Your task to perform on an android device: turn off location history Image 0: 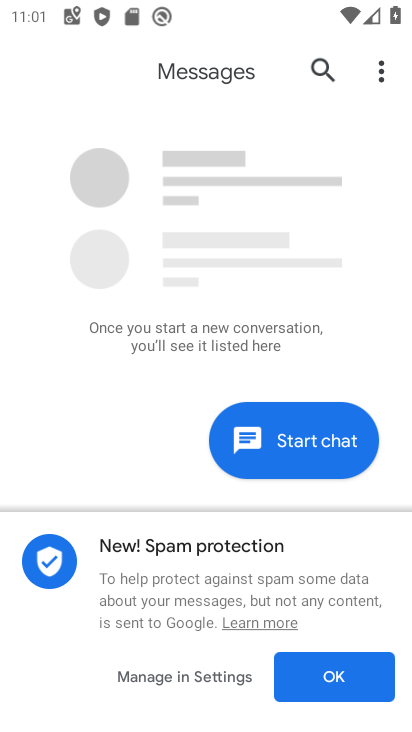
Step 0: press home button
Your task to perform on an android device: turn off location history Image 1: 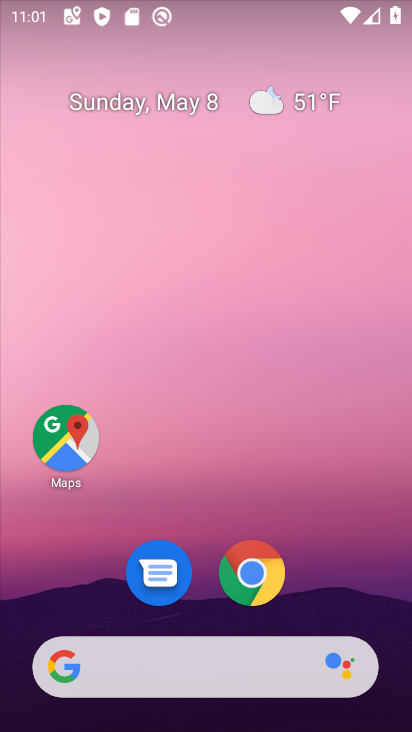
Step 1: drag from (205, 641) to (150, 357)
Your task to perform on an android device: turn off location history Image 2: 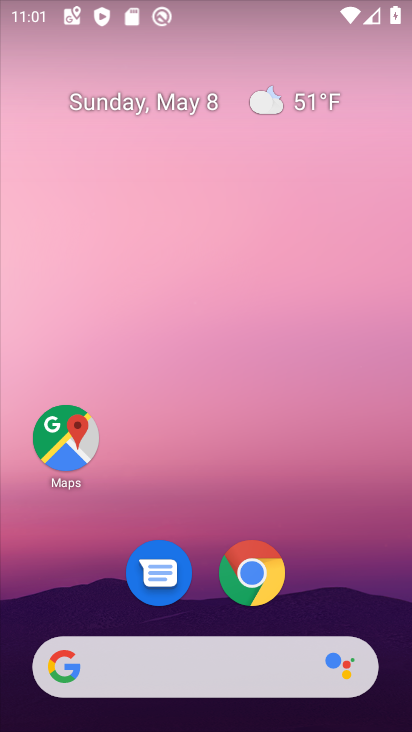
Step 2: drag from (189, 637) to (176, 148)
Your task to perform on an android device: turn off location history Image 3: 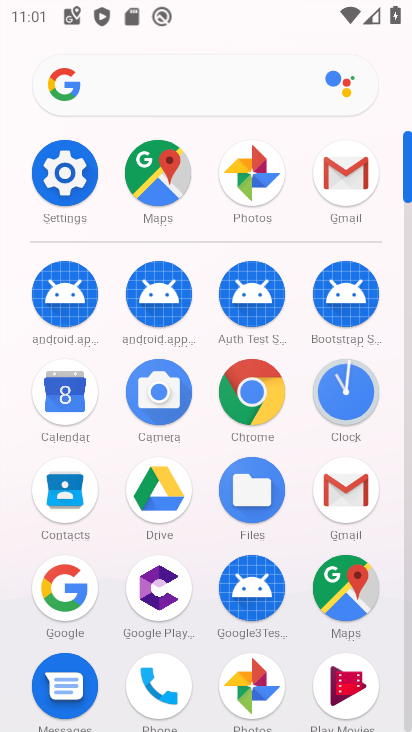
Step 3: click (54, 175)
Your task to perform on an android device: turn off location history Image 4: 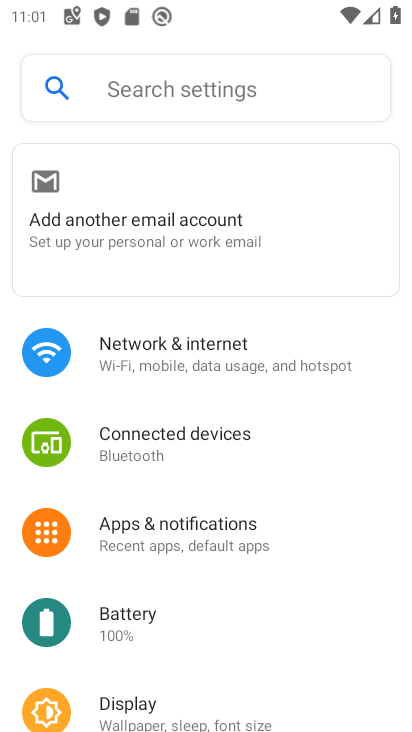
Step 4: drag from (129, 679) to (159, 343)
Your task to perform on an android device: turn off location history Image 5: 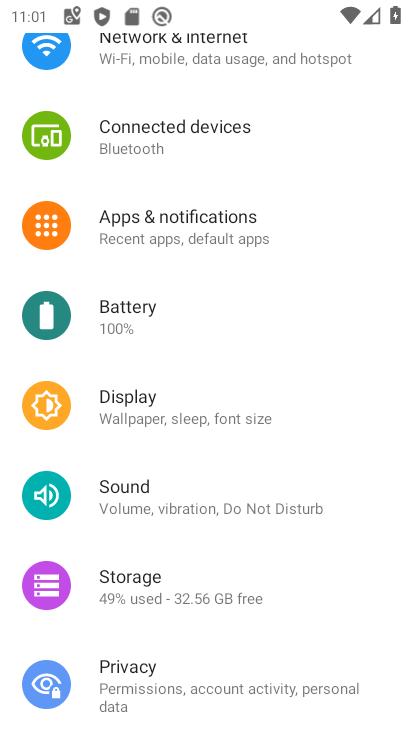
Step 5: drag from (192, 683) to (206, 394)
Your task to perform on an android device: turn off location history Image 6: 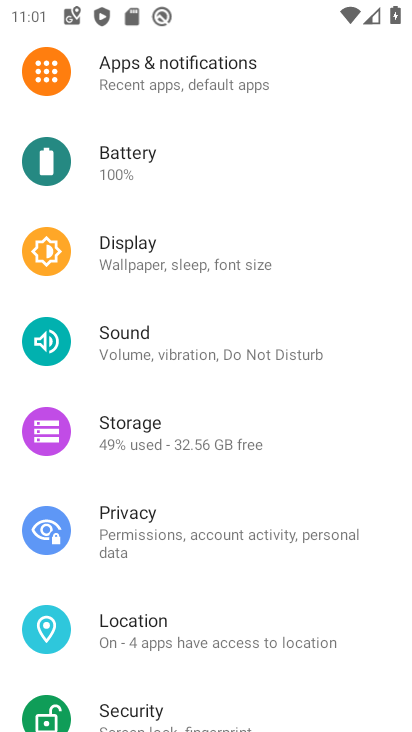
Step 6: click (154, 632)
Your task to perform on an android device: turn off location history Image 7: 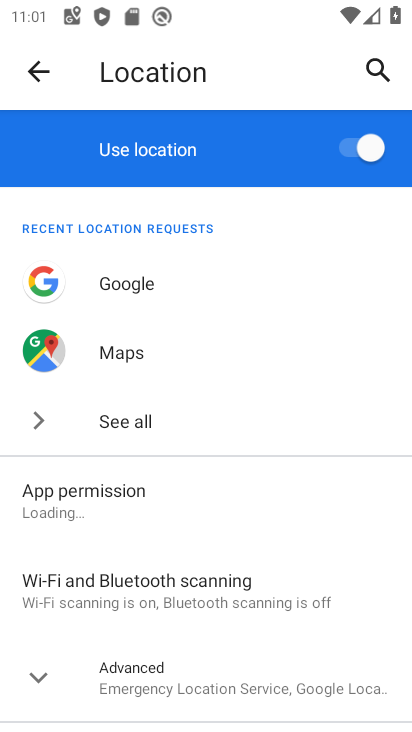
Step 7: drag from (160, 717) to (179, 475)
Your task to perform on an android device: turn off location history Image 8: 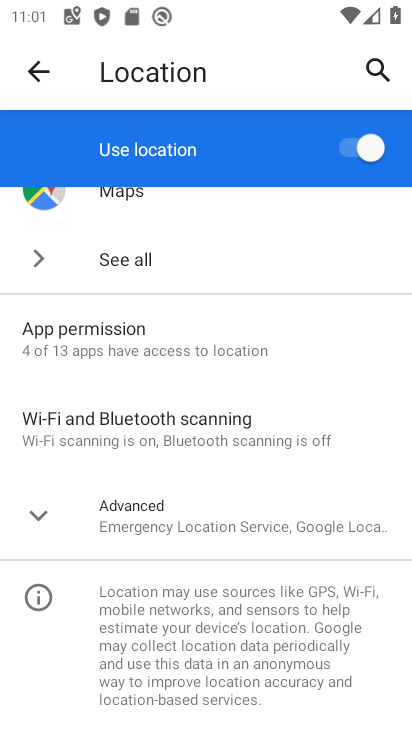
Step 8: click (144, 511)
Your task to perform on an android device: turn off location history Image 9: 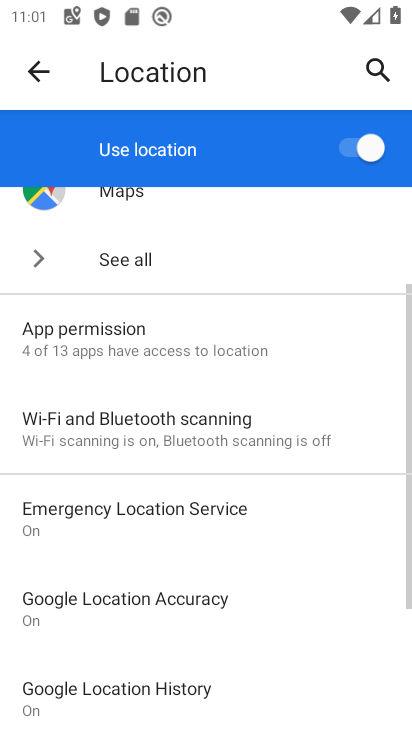
Step 9: drag from (192, 683) to (206, 450)
Your task to perform on an android device: turn off location history Image 10: 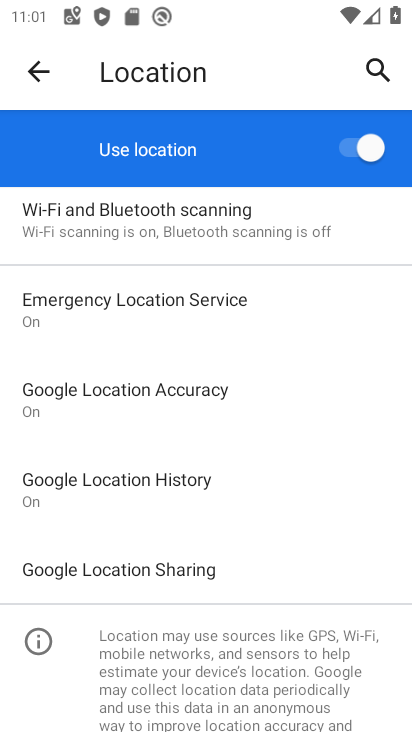
Step 10: click (52, 489)
Your task to perform on an android device: turn off location history Image 11: 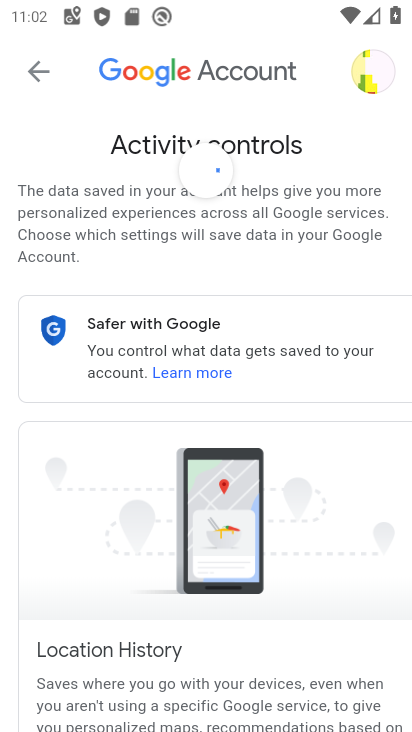
Step 11: drag from (261, 674) to (303, 279)
Your task to perform on an android device: turn off location history Image 12: 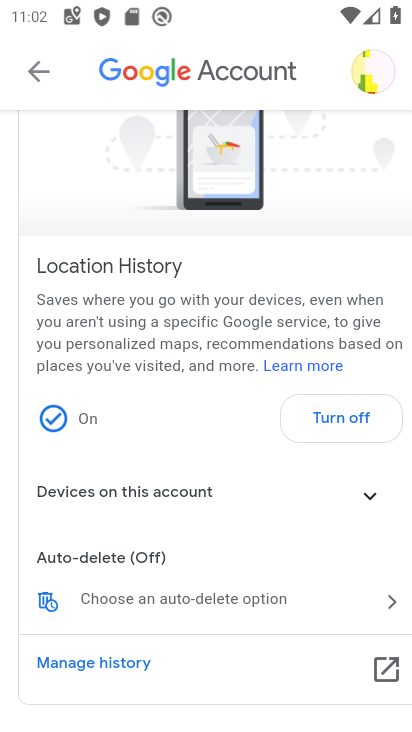
Step 12: drag from (320, 636) to (302, 346)
Your task to perform on an android device: turn off location history Image 13: 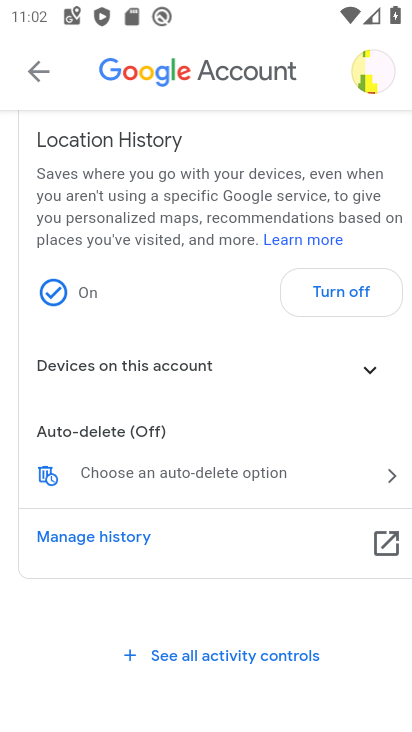
Step 13: click (331, 299)
Your task to perform on an android device: turn off location history Image 14: 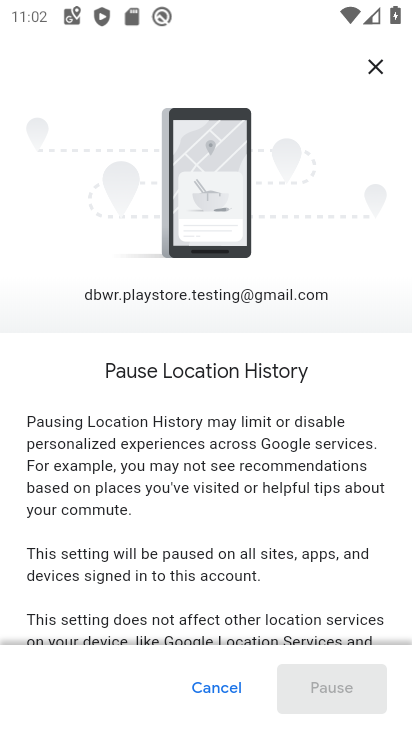
Step 14: drag from (172, 618) to (241, 237)
Your task to perform on an android device: turn off location history Image 15: 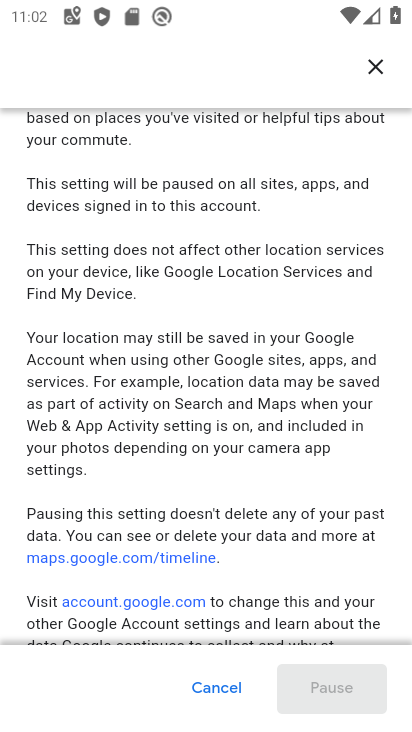
Step 15: drag from (239, 633) to (231, 294)
Your task to perform on an android device: turn off location history Image 16: 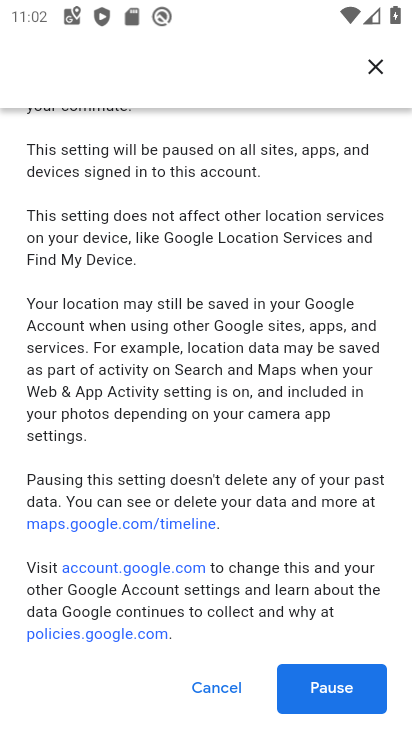
Step 16: drag from (281, 559) to (265, 318)
Your task to perform on an android device: turn off location history Image 17: 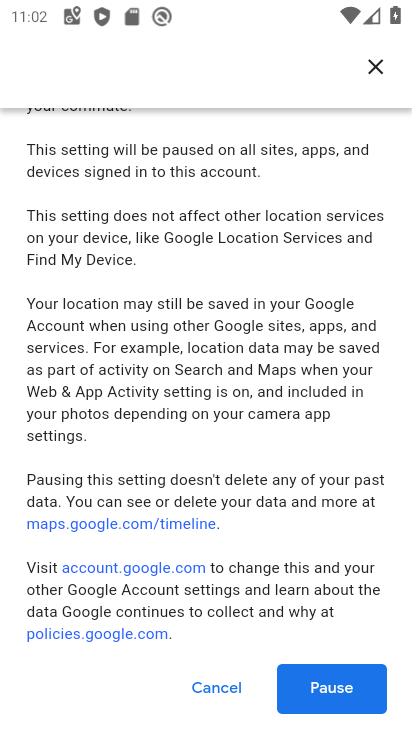
Step 17: click (316, 690)
Your task to perform on an android device: turn off location history Image 18: 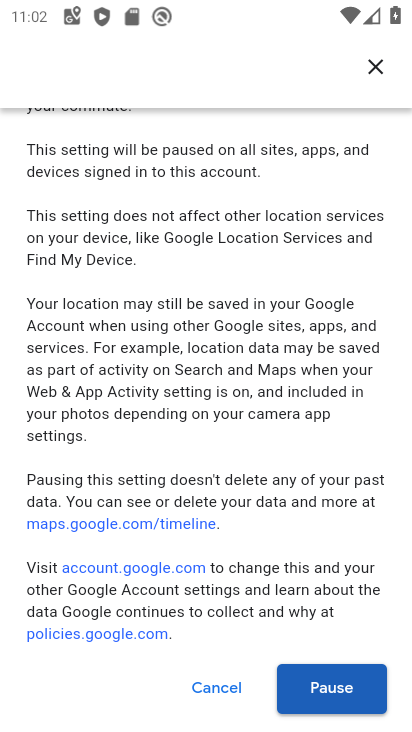
Step 18: click (341, 698)
Your task to perform on an android device: turn off location history Image 19: 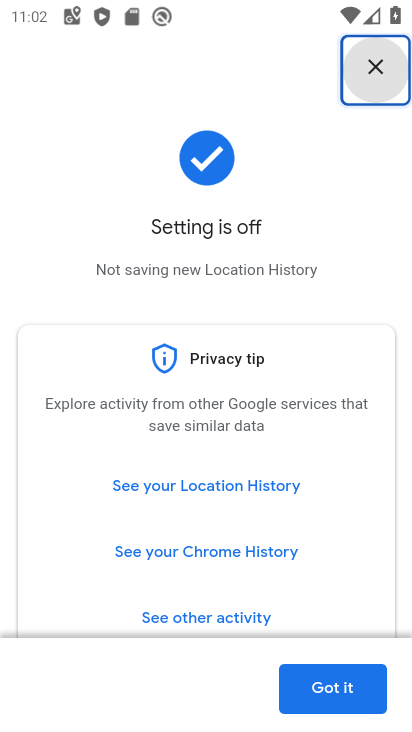
Step 19: click (365, 688)
Your task to perform on an android device: turn off location history Image 20: 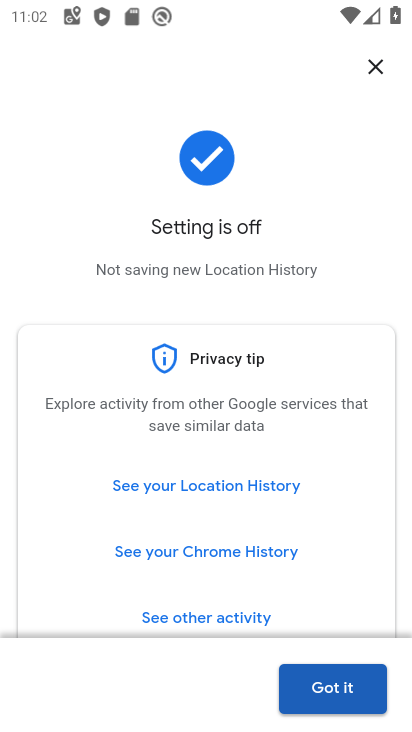
Step 20: click (307, 682)
Your task to perform on an android device: turn off location history Image 21: 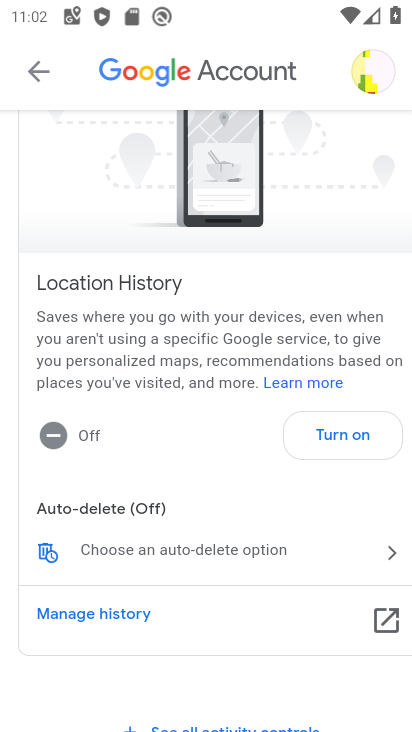
Step 21: task complete